Your task to perform on an android device: turn on priority inbox in the gmail app Image 0: 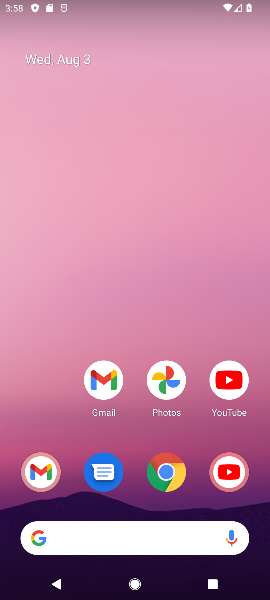
Step 0: drag from (202, 480) to (118, 13)
Your task to perform on an android device: turn on priority inbox in the gmail app Image 1: 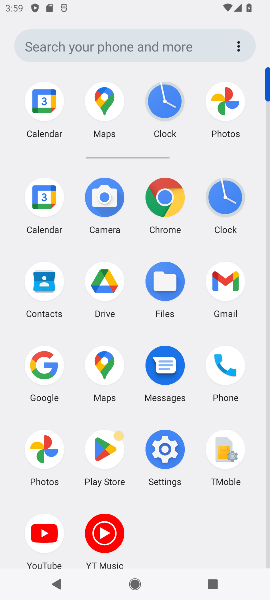
Step 1: click (217, 290)
Your task to perform on an android device: turn on priority inbox in the gmail app Image 2: 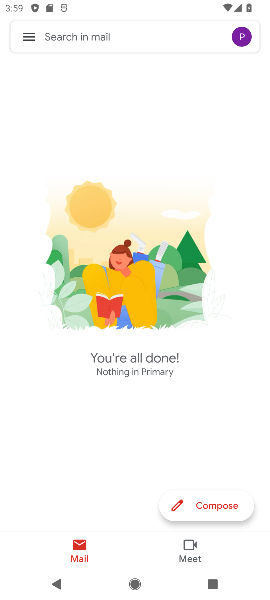
Step 2: click (28, 37)
Your task to perform on an android device: turn on priority inbox in the gmail app Image 3: 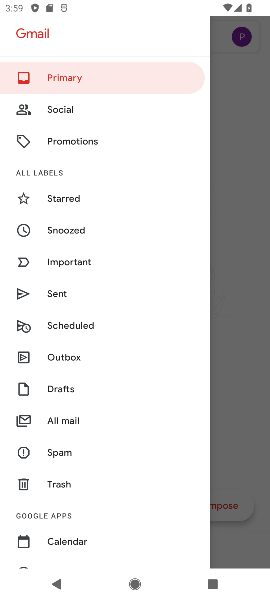
Step 3: drag from (55, 528) to (96, 73)
Your task to perform on an android device: turn on priority inbox in the gmail app Image 4: 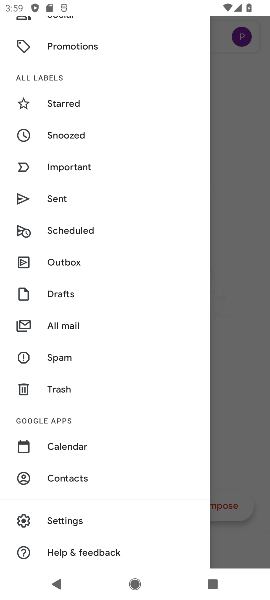
Step 4: click (63, 522)
Your task to perform on an android device: turn on priority inbox in the gmail app Image 5: 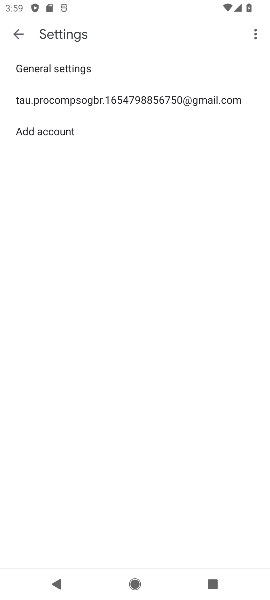
Step 5: click (141, 108)
Your task to perform on an android device: turn on priority inbox in the gmail app Image 6: 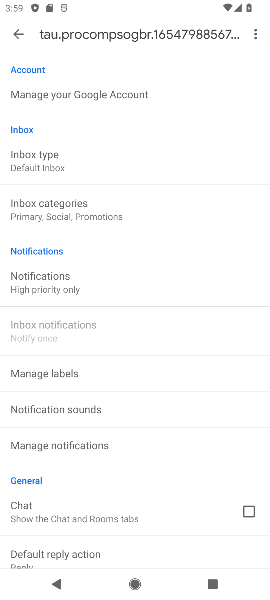
Step 6: click (52, 169)
Your task to perform on an android device: turn on priority inbox in the gmail app Image 7: 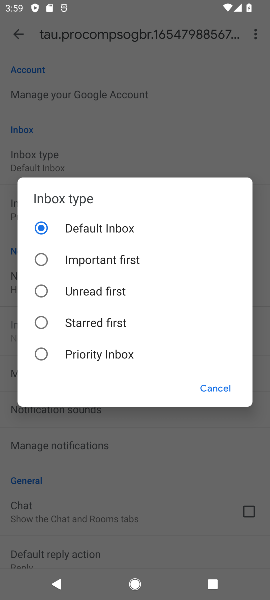
Step 7: click (51, 355)
Your task to perform on an android device: turn on priority inbox in the gmail app Image 8: 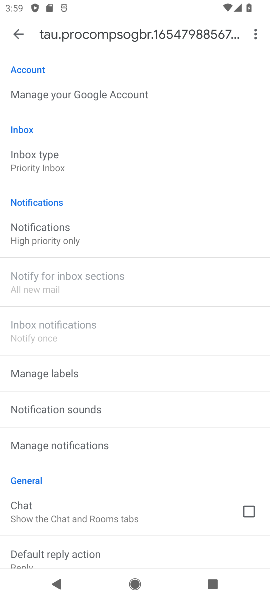
Step 8: task complete